Your task to perform on an android device: Go to accessibility settings Image 0: 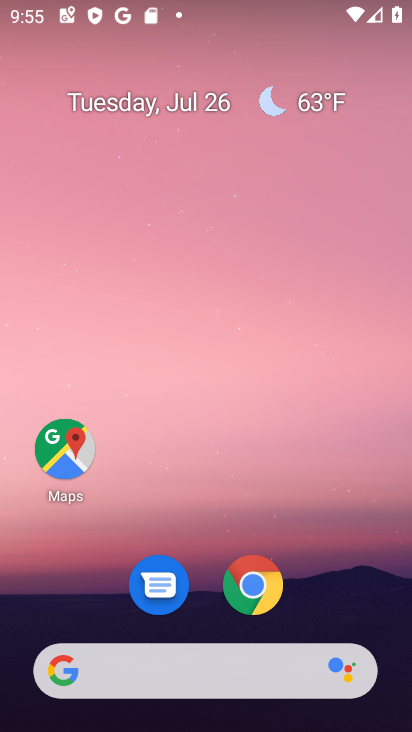
Step 0: drag from (343, 526) to (384, 197)
Your task to perform on an android device: Go to accessibility settings Image 1: 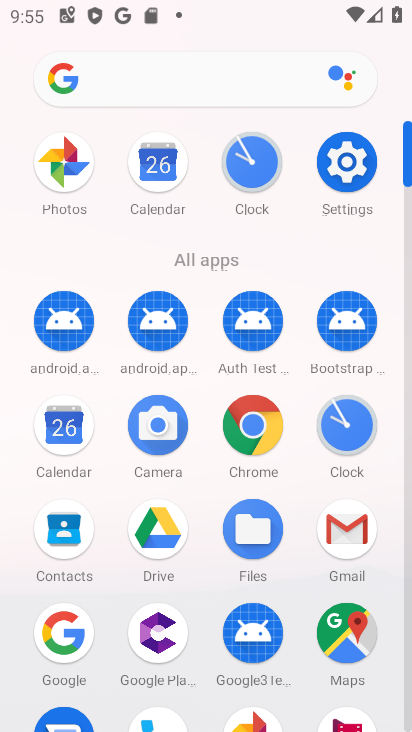
Step 1: click (338, 162)
Your task to perform on an android device: Go to accessibility settings Image 2: 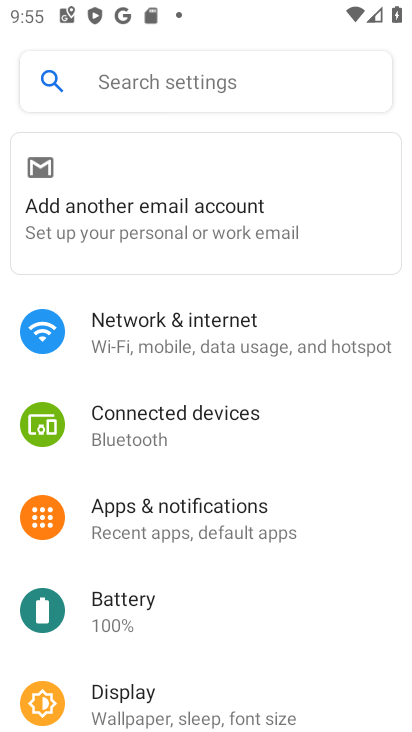
Step 2: drag from (195, 568) to (223, 0)
Your task to perform on an android device: Go to accessibility settings Image 3: 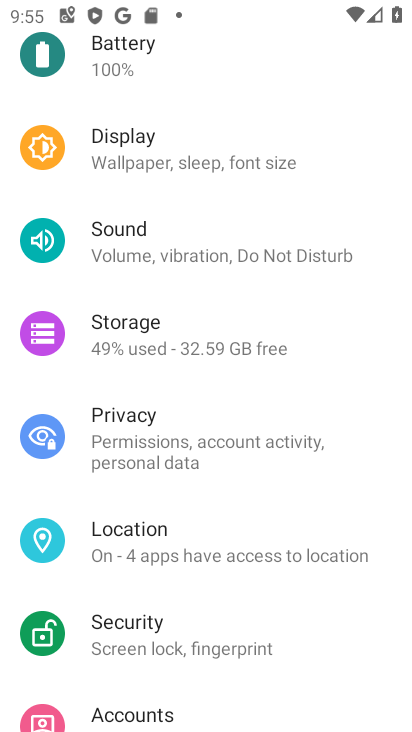
Step 3: drag from (200, 606) to (247, 145)
Your task to perform on an android device: Go to accessibility settings Image 4: 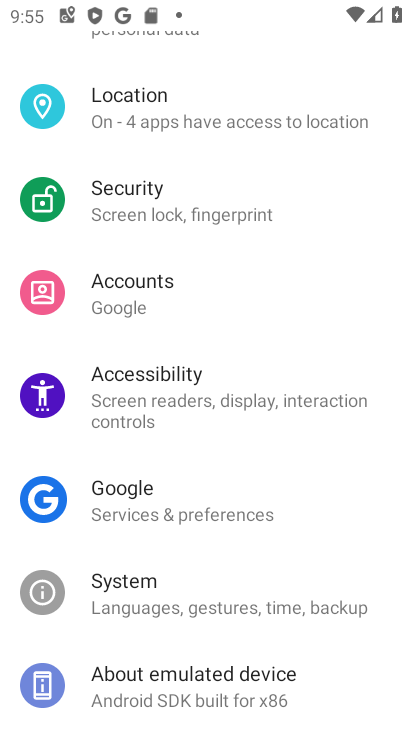
Step 4: click (238, 379)
Your task to perform on an android device: Go to accessibility settings Image 5: 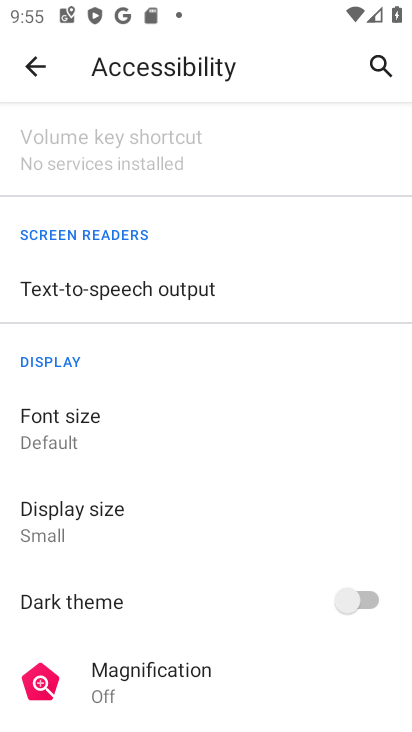
Step 5: task complete